Your task to perform on an android device: delete location history Image 0: 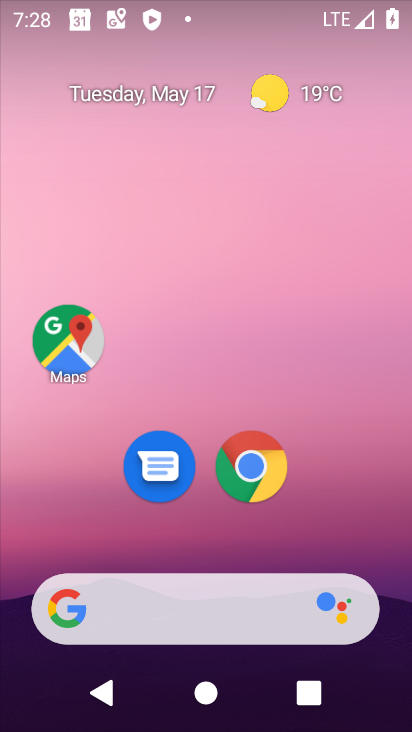
Step 0: press home button
Your task to perform on an android device: delete location history Image 1: 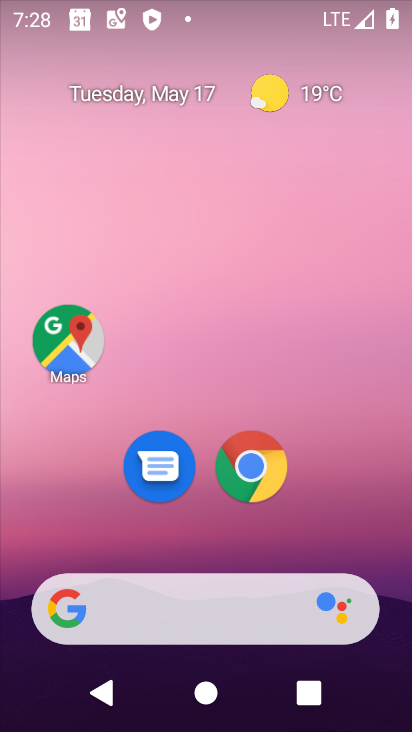
Step 1: drag from (152, 609) to (270, 90)
Your task to perform on an android device: delete location history Image 2: 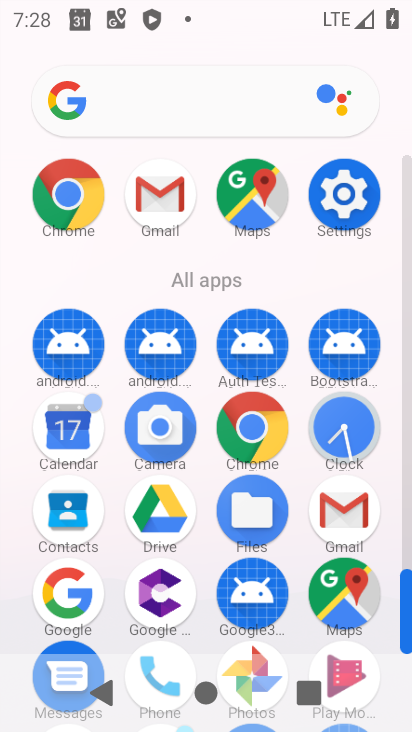
Step 2: click (255, 198)
Your task to perform on an android device: delete location history Image 3: 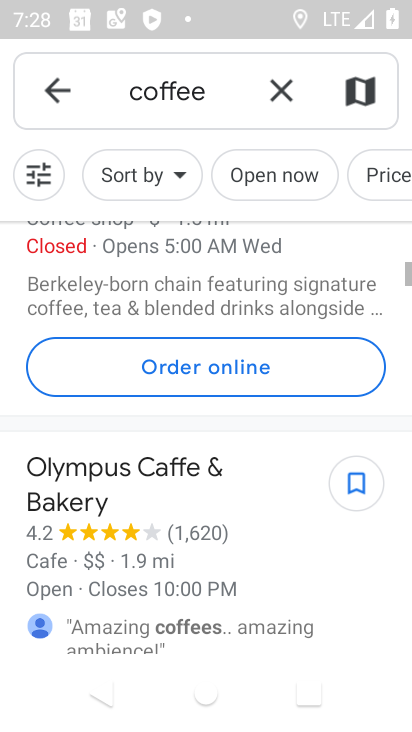
Step 3: click (56, 95)
Your task to perform on an android device: delete location history Image 4: 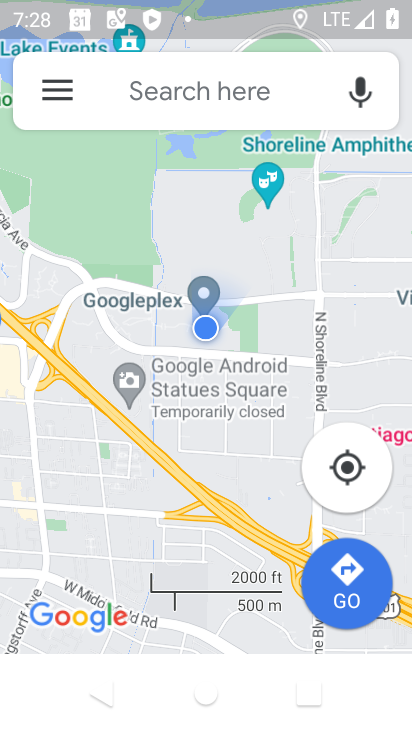
Step 4: click (56, 95)
Your task to perform on an android device: delete location history Image 5: 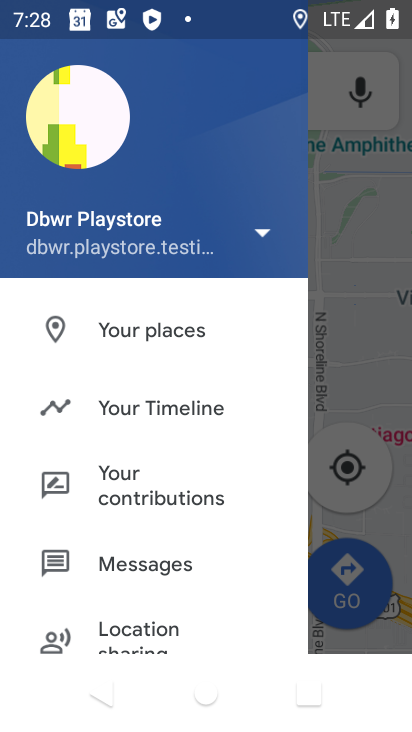
Step 5: click (196, 408)
Your task to perform on an android device: delete location history Image 6: 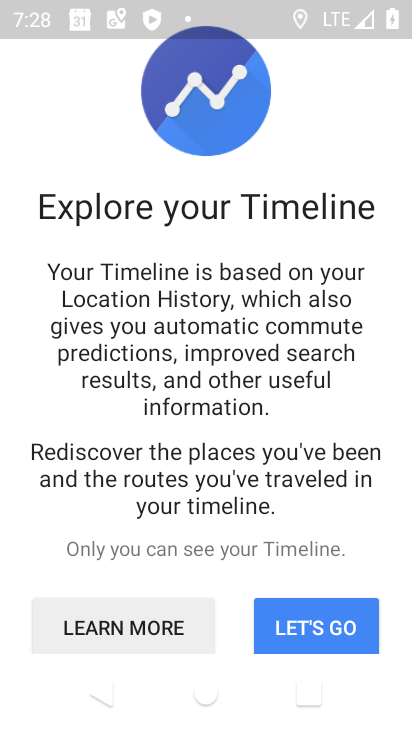
Step 6: drag from (218, 562) to (280, 257)
Your task to perform on an android device: delete location history Image 7: 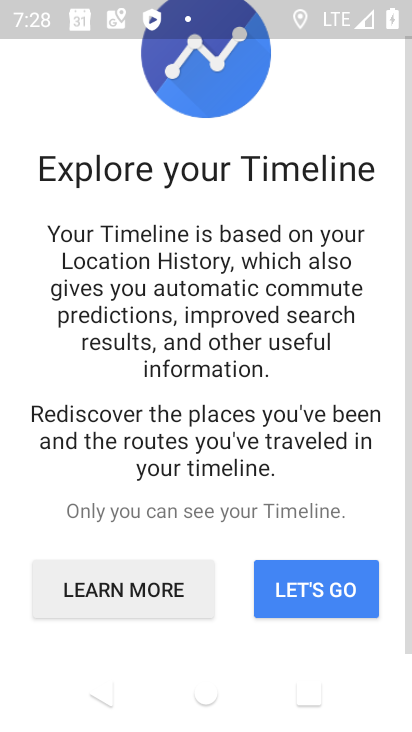
Step 7: click (291, 585)
Your task to perform on an android device: delete location history Image 8: 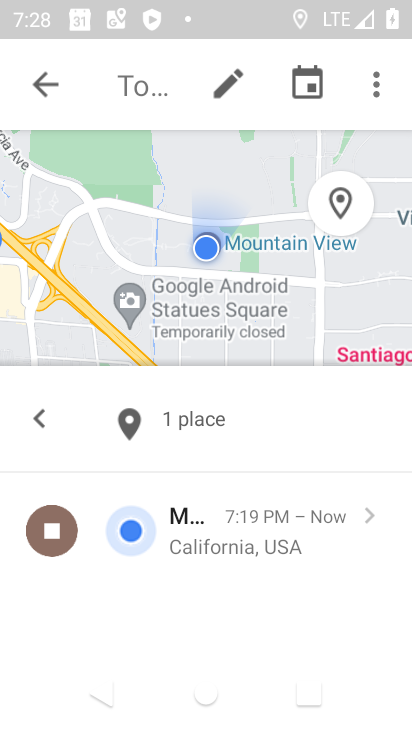
Step 8: click (376, 89)
Your task to perform on an android device: delete location history Image 9: 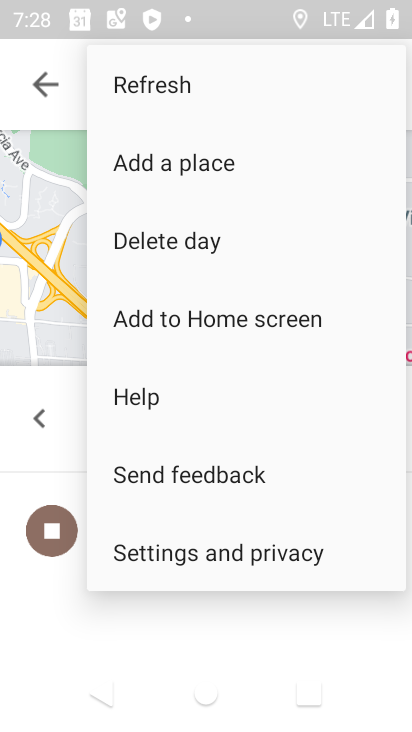
Step 9: click (179, 546)
Your task to perform on an android device: delete location history Image 10: 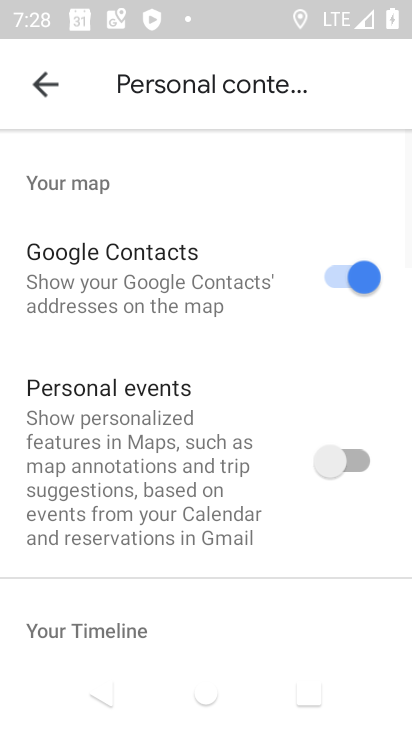
Step 10: drag from (173, 614) to (205, 140)
Your task to perform on an android device: delete location history Image 11: 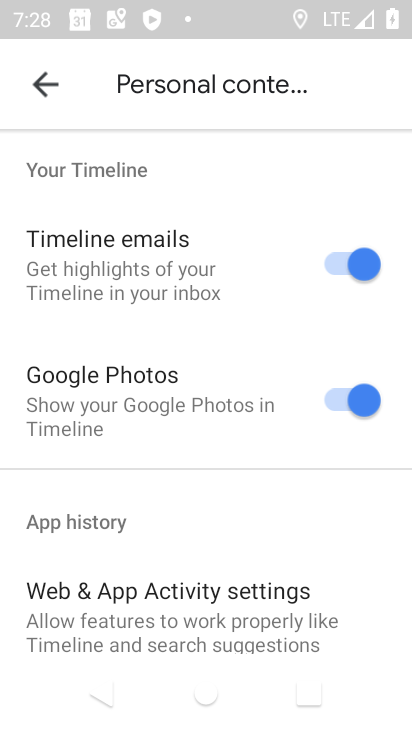
Step 11: drag from (166, 619) to (222, 77)
Your task to perform on an android device: delete location history Image 12: 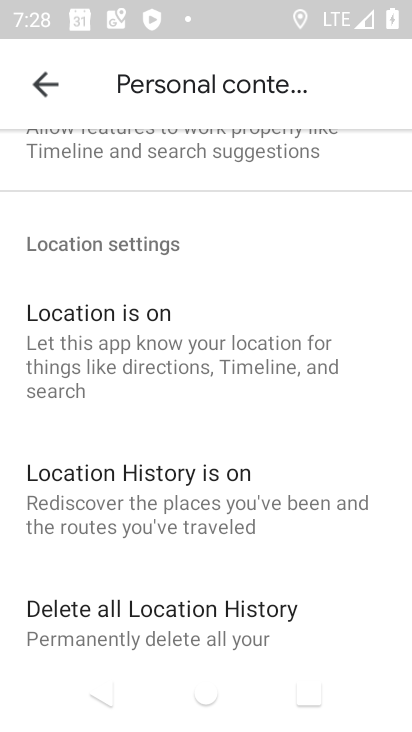
Step 12: click (152, 617)
Your task to perform on an android device: delete location history Image 13: 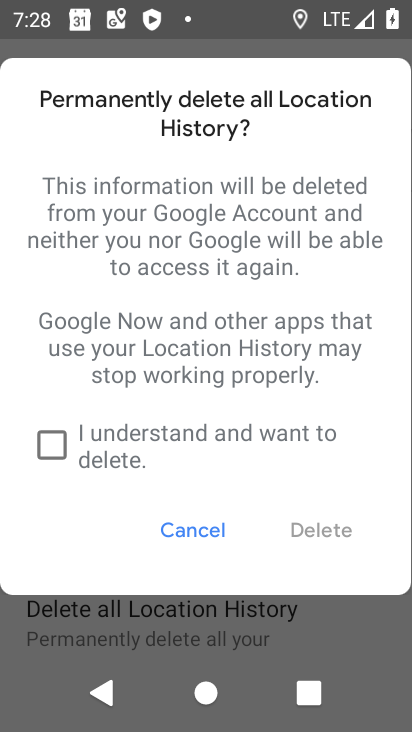
Step 13: click (54, 446)
Your task to perform on an android device: delete location history Image 14: 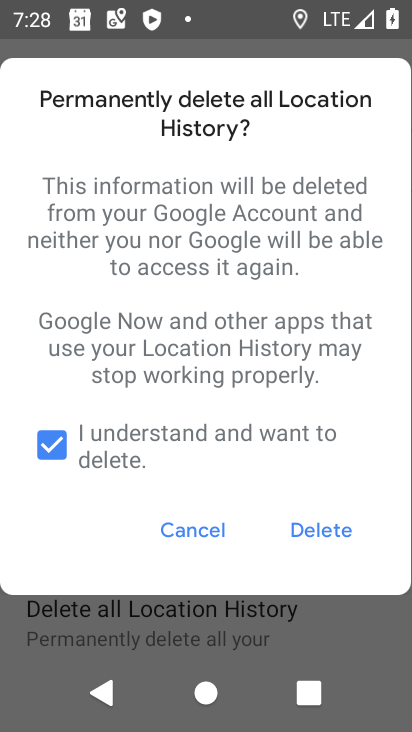
Step 14: click (337, 527)
Your task to perform on an android device: delete location history Image 15: 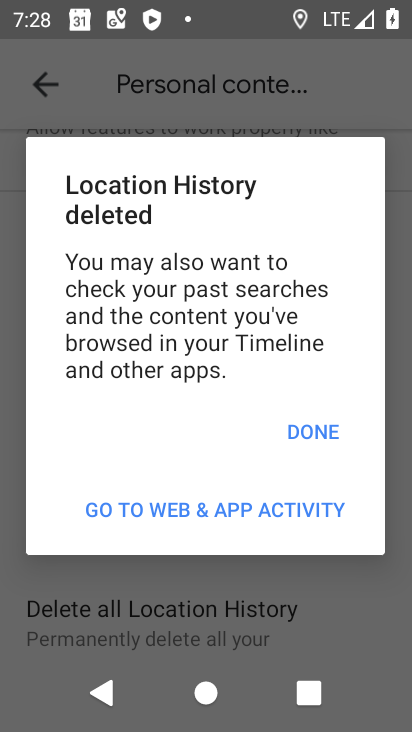
Step 15: click (317, 432)
Your task to perform on an android device: delete location history Image 16: 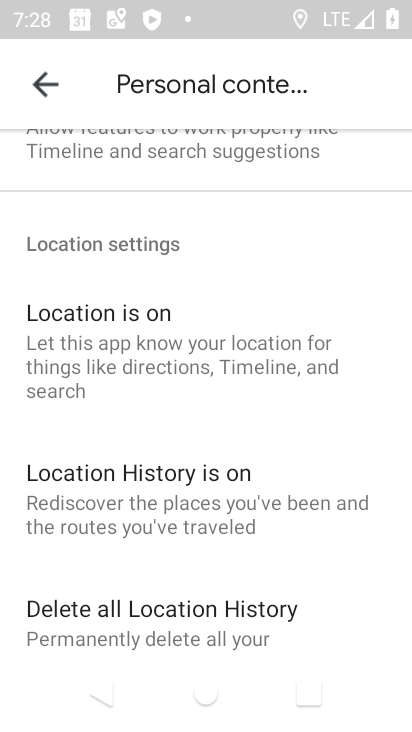
Step 16: task complete